Your task to perform on an android device: check the backup settings in the google photos Image 0: 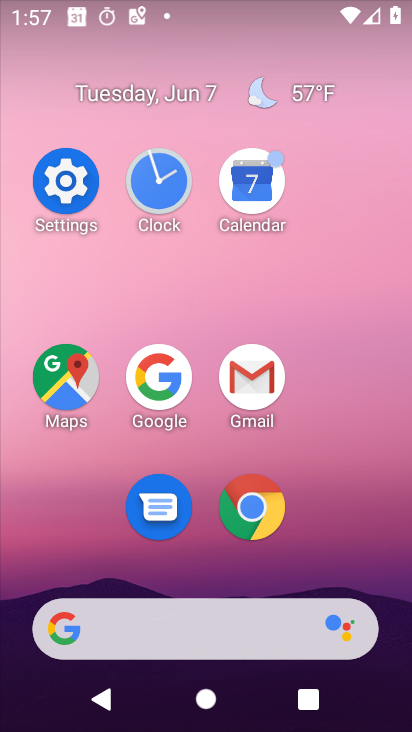
Step 0: drag from (344, 515) to (389, 98)
Your task to perform on an android device: check the backup settings in the google photos Image 1: 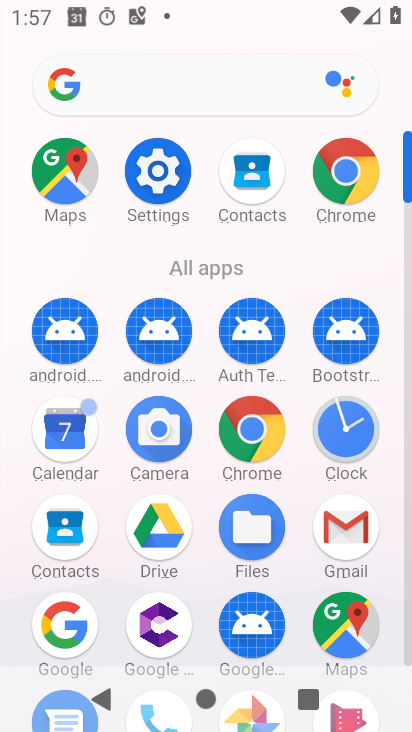
Step 1: drag from (294, 537) to (343, 173)
Your task to perform on an android device: check the backup settings in the google photos Image 2: 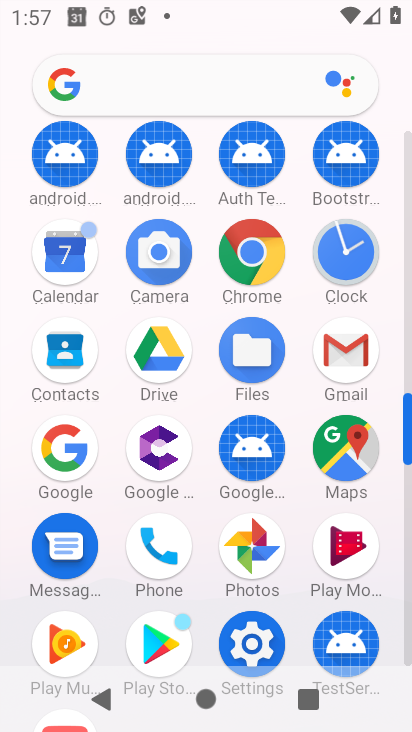
Step 2: drag from (257, 549) to (120, 291)
Your task to perform on an android device: check the backup settings in the google photos Image 3: 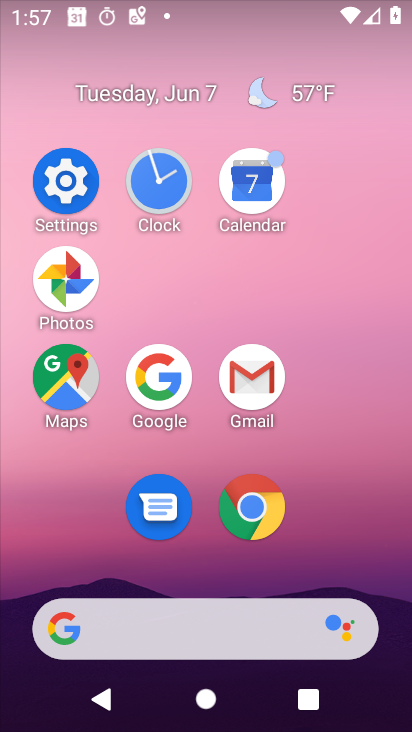
Step 3: click (64, 258)
Your task to perform on an android device: check the backup settings in the google photos Image 4: 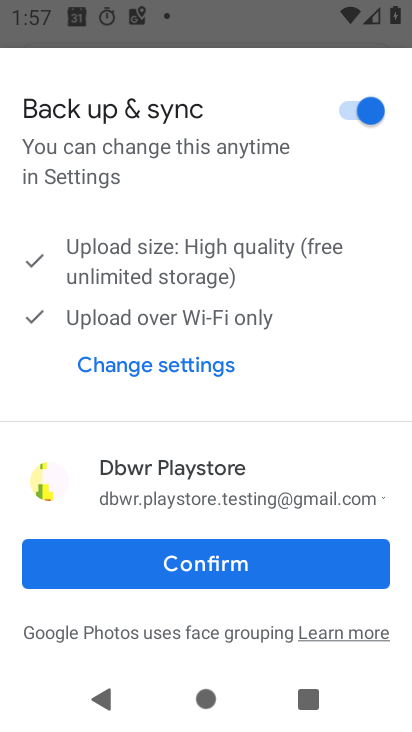
Step 4: click (179, 555)
Your task to perform on an android device: check the backup settings in the google photos Image 5: 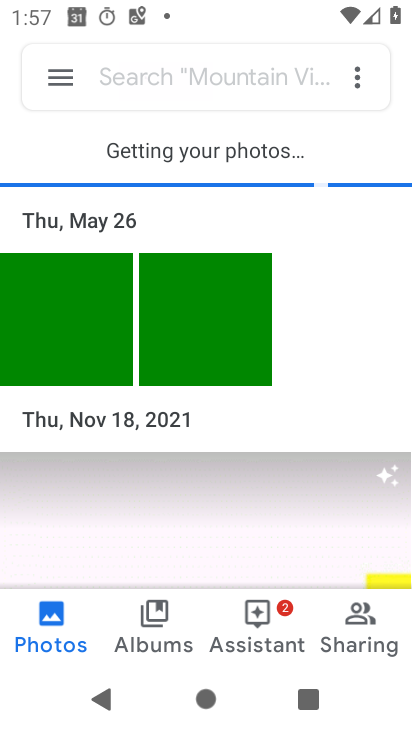
Step 5: click (72, 101)
Your task to perform on an android device: check the backup settings in the google photos Image 6: 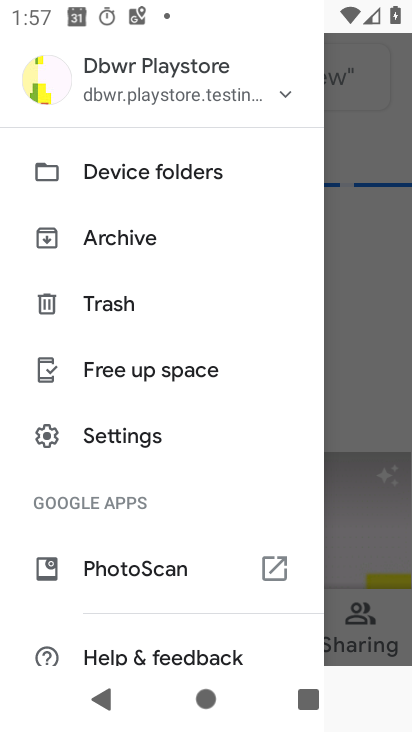
Step 6: click (199, 432)
Your task to perform on an android device: check the backup settings in the google photos Image 7: 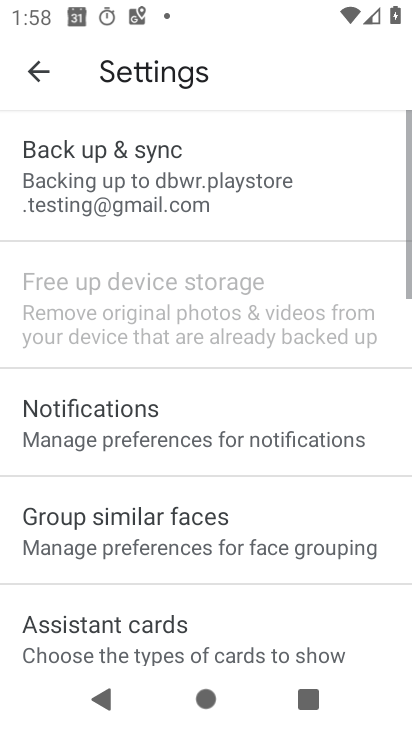
Step 7: click (213, 151)
Your task to perform on an android device: check the backup settings in the google photos Image 8: 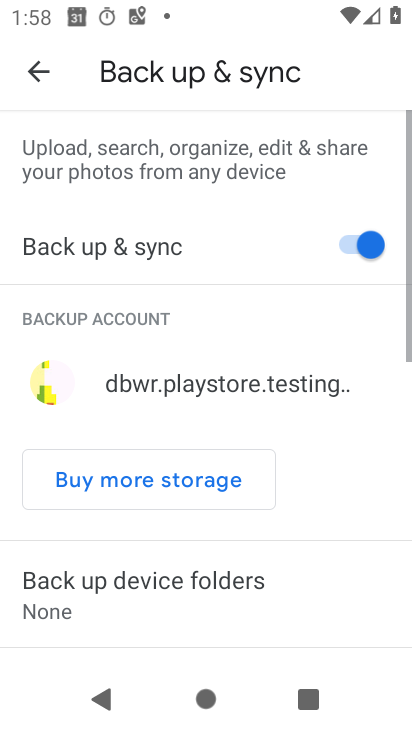
Step 8: task complete